Your task to perform on an android device: Open the calendar app, open the side menu, and click the "Day" option Image 0: 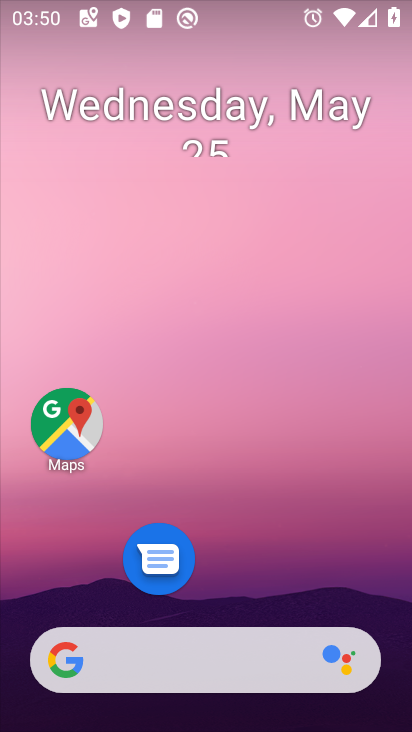
Step 0: drag from (217, 606) to (219, 3)
Your task to perform on an android device: Open the calendar app, open the side menu, and click the "Day" option Image 1: 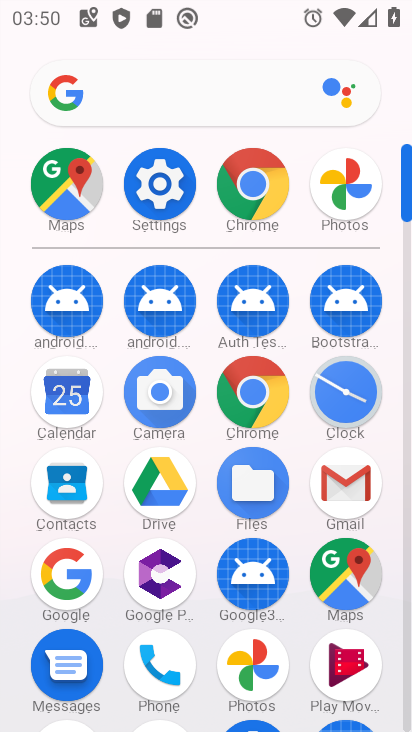
Step 1: click (63, 392)
Your task to perform on an android device: Open the calendar app, open the side menu, and click the "Day" option Image 2: 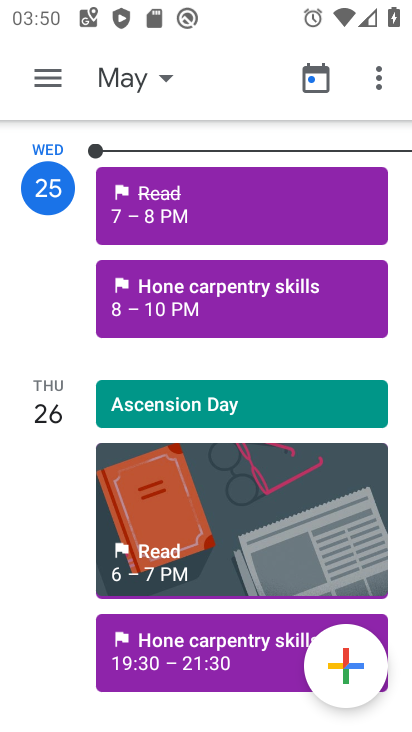
Step 2: click (47, 83)
Your task to perform on an android device: Open the calendar app, open the side menu, and click the "Day" option Image 3: 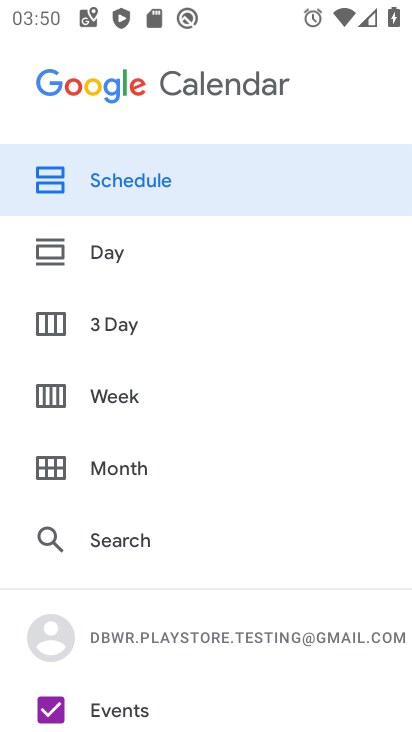
Step 3: click (77, 255)
Your task to perform on an android device: Open the calendar app, open the side menu, and click the "Day" option Image 4: 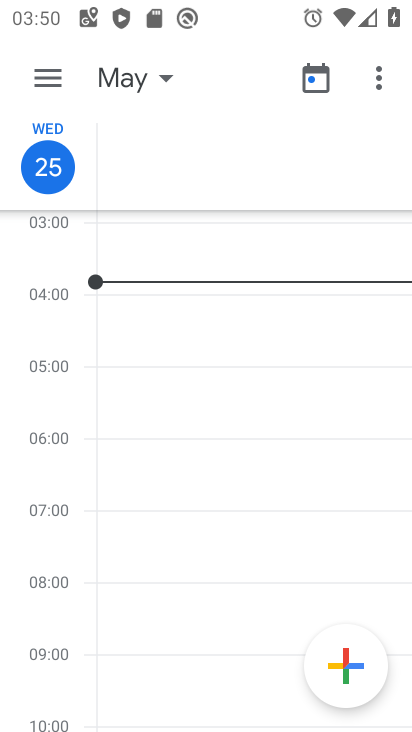
Step 4: task complete